Your task to perform on an android device: turn off notifications in google photos Image 0: 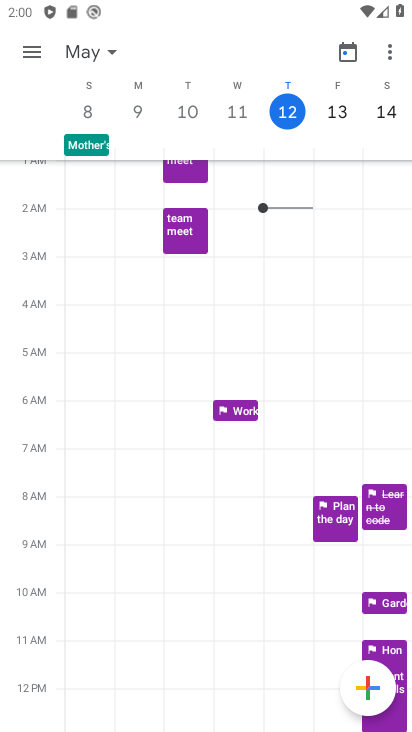
Step 0: press home button
Your task to perform on an android device: turn off notifications in google photos Image 1: 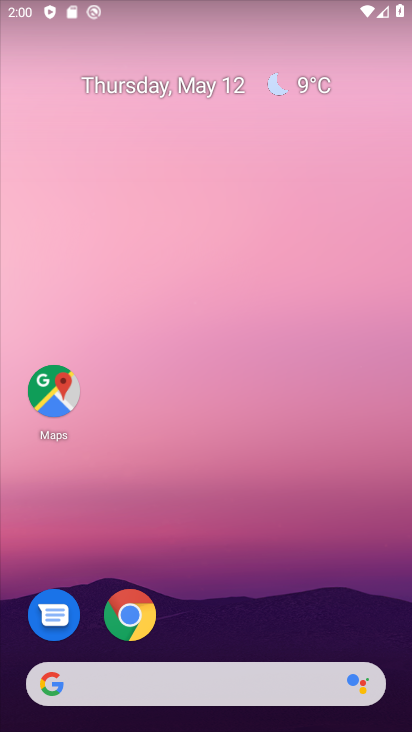
Step 1: drag from (209, 690) to (187, 252)
Your task to perform on an android device: turn off notifications in google photos Image 2: 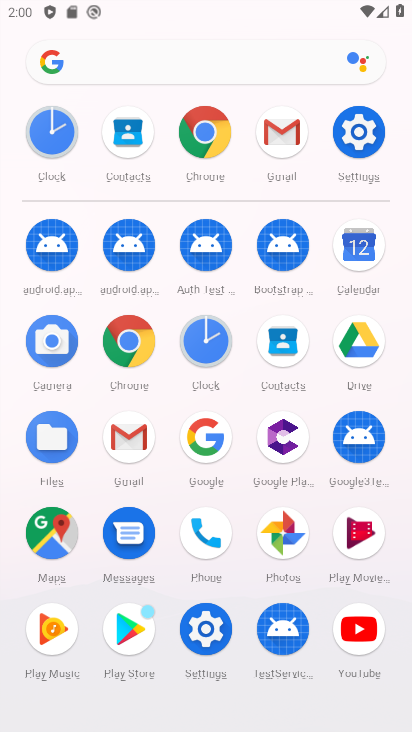
Step 2: click (288, 537)
Your task to perform on an android device: turn off notifications in google photos Image 3: 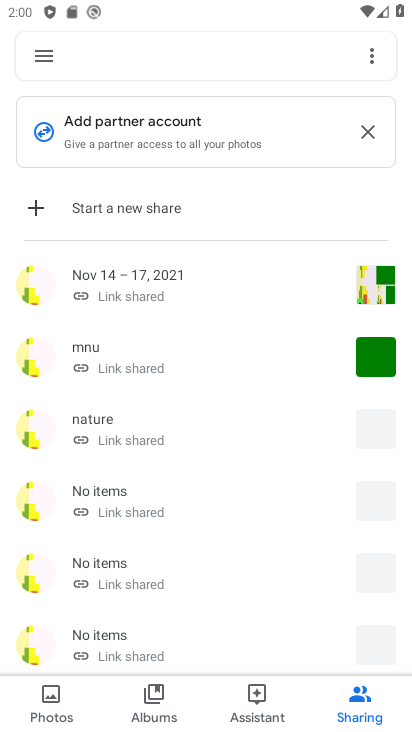
Step 3: click (51, 65)
Your task to perform on an android device: turn off notifications in google photos Image 4: 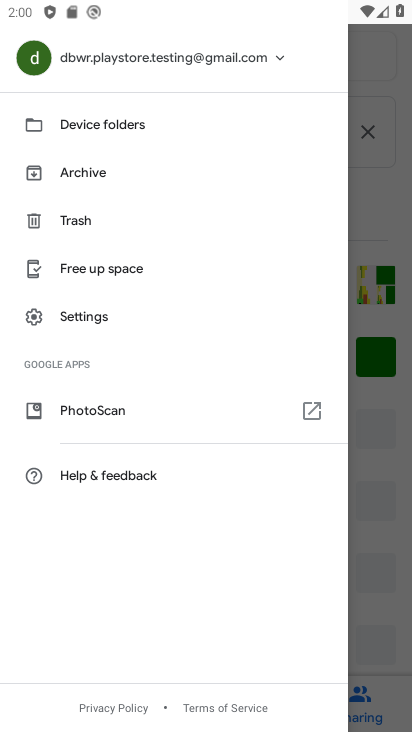
Step 4: click (73, 328)
Your task to perform on an android device: turn off notifications in google photos Image 5: 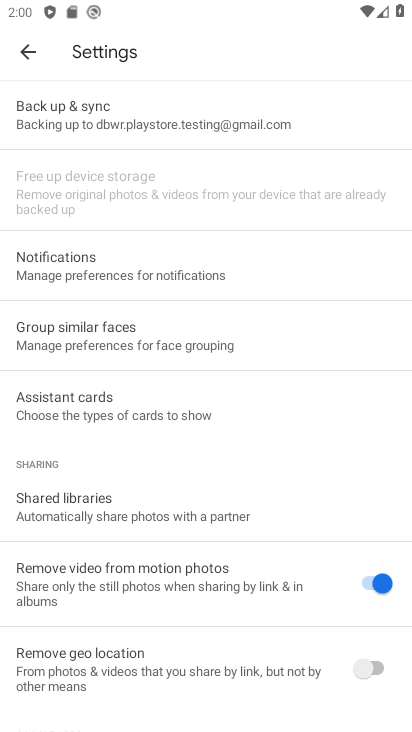
Step 5: click (66, 274)
Your task to perform on an android device: turn off notifications in google photos Image 6: 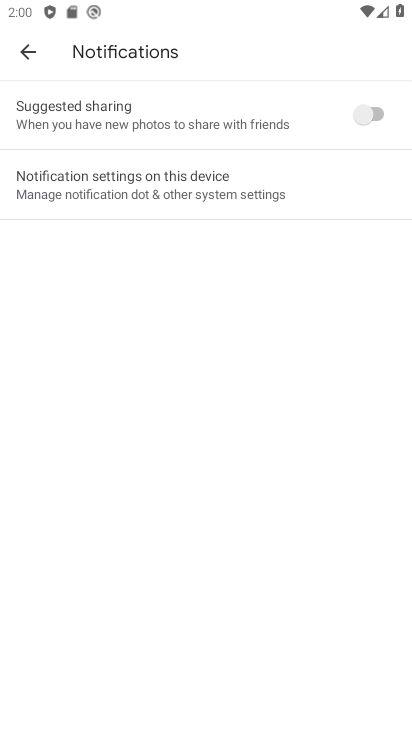
Step 6: click (169, 187)
Your task to perform on an android device: turn off notifications in google photos Image 7: 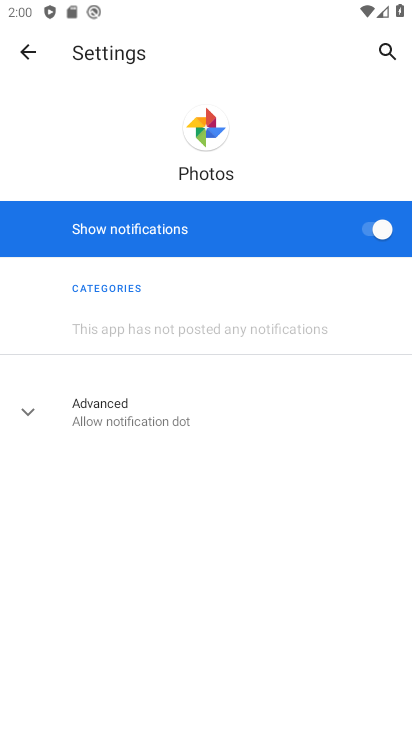
Step 7: click (370, 231)
Your task to perform on an android device: turn off notifications in google photos Image 8: 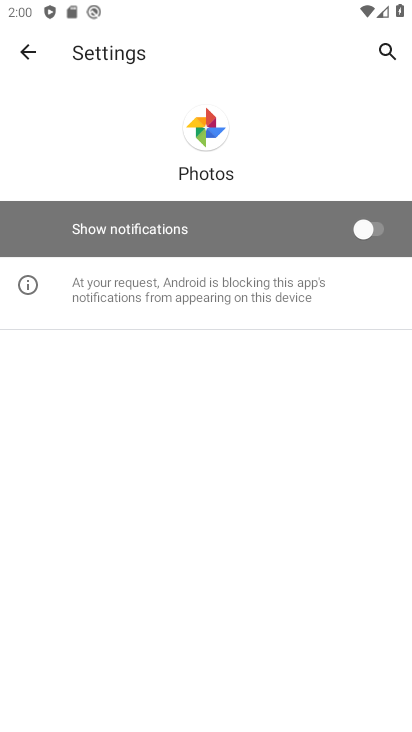
Step 8: task complete